Your task to perform on an android device: open app "Life360: Find Family & Friends" Image 0: 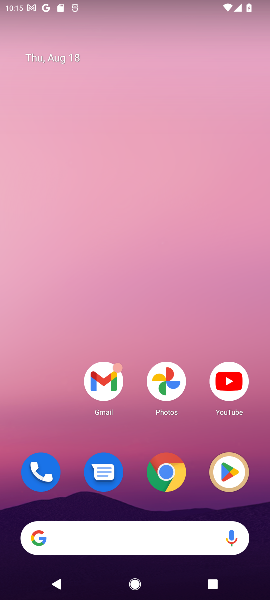
Step 0: click (229, 471)
Your task to perform on an android device: open app "Life360: Find Family & Friends" Image 1: 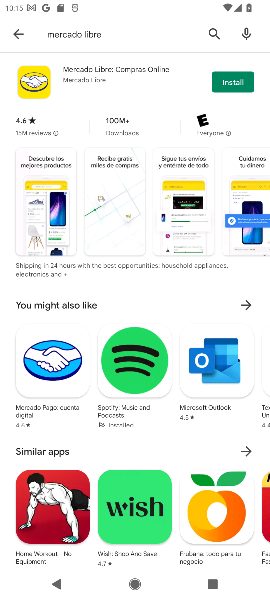
Step 1: click (217, 35)
Your task to perform on an android device: open app "Life360: Find Family & Friends" Image 2: 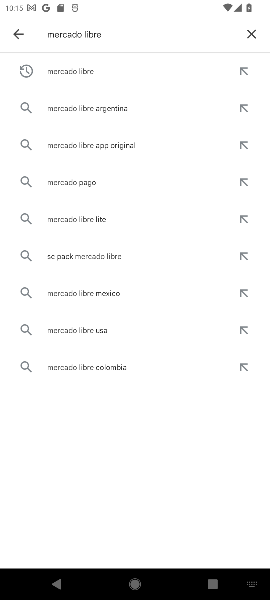
Step 2: click (252, 33)
Your task to perform on an android device: open app "Life360: Find Family & Friends" Image 3: 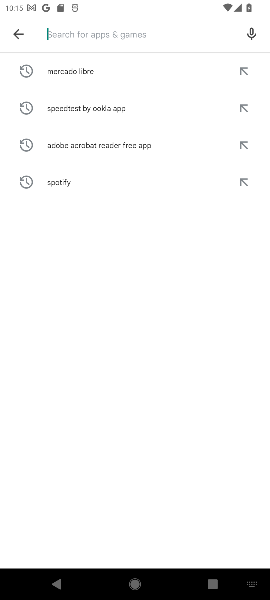
Step 3: type "life360"
Your task to perform on an android device: open app "Life360: Find Family & Friends" Image 4: 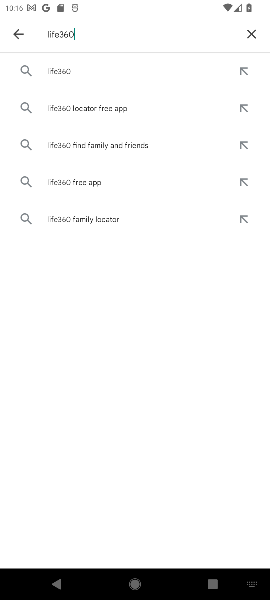
Step 4: click (89, 67)
Your task to perform on an android device: open app "Life360: Find Family & Friends" Image 5: 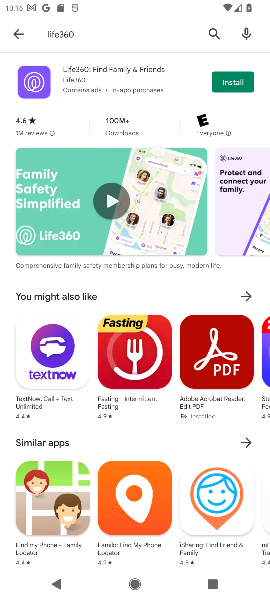
Step 5: click (141, 81)
Your task to perform on an android device: open app "Life360: Find Family & Friends" Image 6: 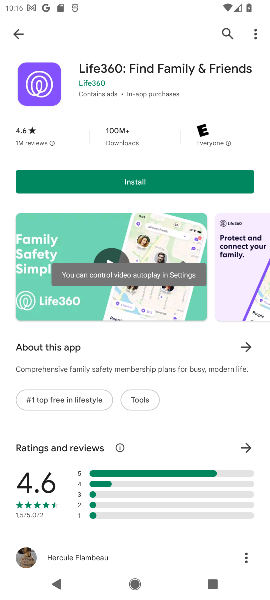
Step 6: task complete